Your task to perform on an android device: turn on airplane mode Image 0: 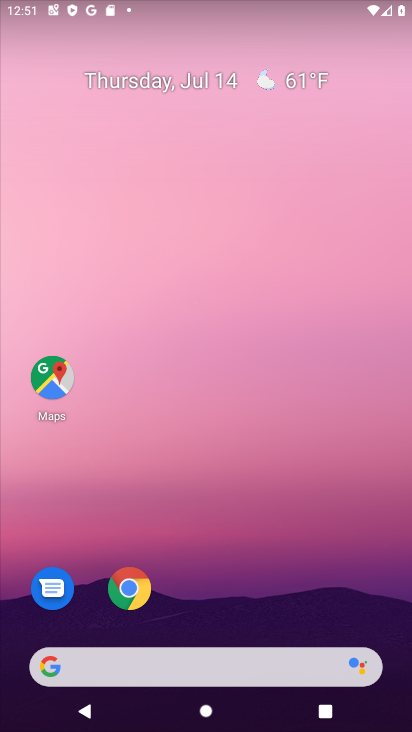
Step 0: drag from (217, 624) to (221, 67)
Your task to perform on an android device: turn on airplane mode Image 1: 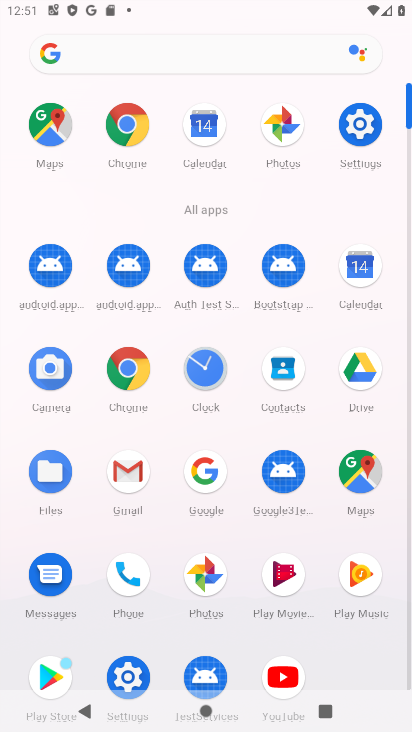
Step 1: click (364, 140)
Your task to perform on an android device: turn on airplane mode Image 2: 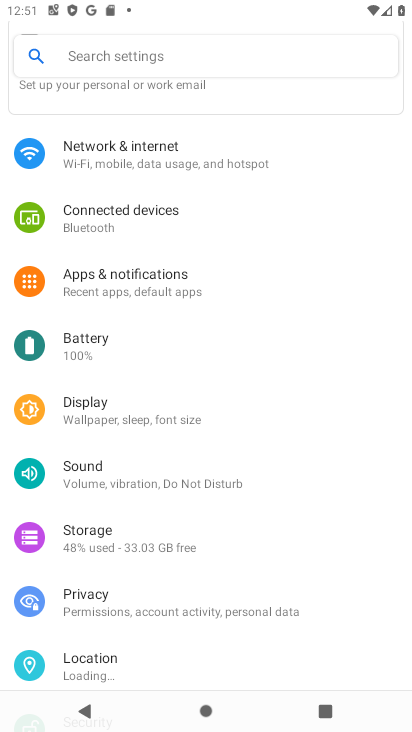
Step 2: click (144, 167)
Your task to perform on an android device: turn on airplane mode Image 3: 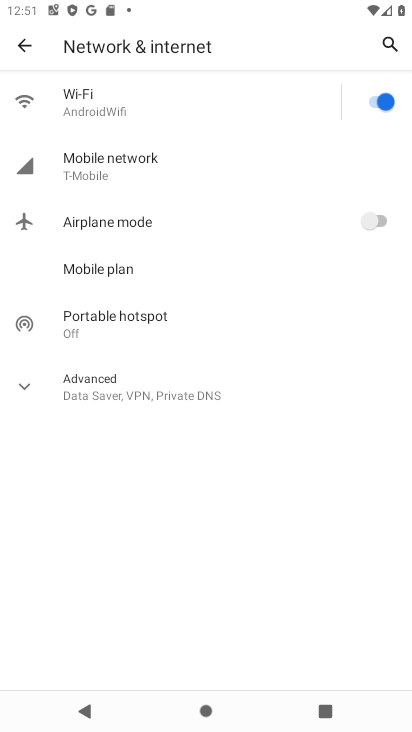
Step 3: click (387, 226)
Your task to perform on an android device: turn on airplane mode Image 4: 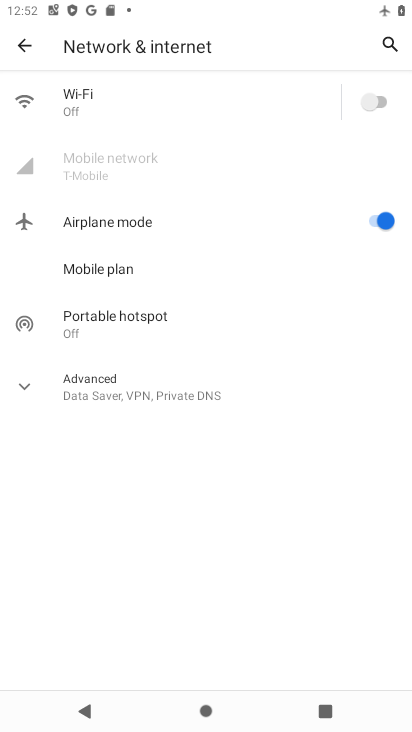
Step 4: task complete